Your task to perform on an android device: delete a single message in the gmail app Image 0: 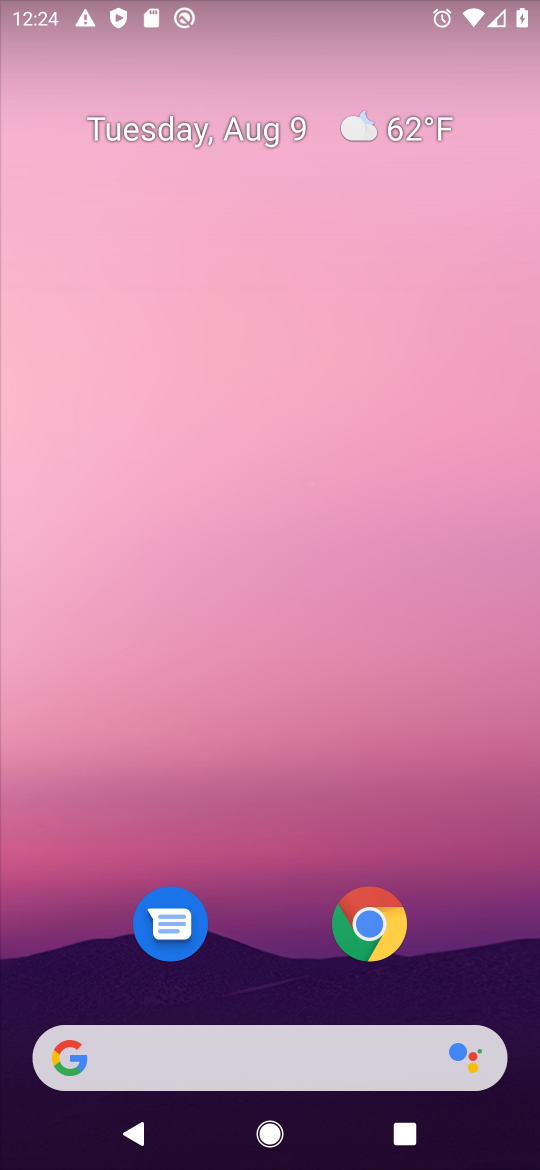
Step 0: drag from (283, 1010) to (324, 99)
Your task to perform on an android device: delete a single message in the gmail app Image 1: 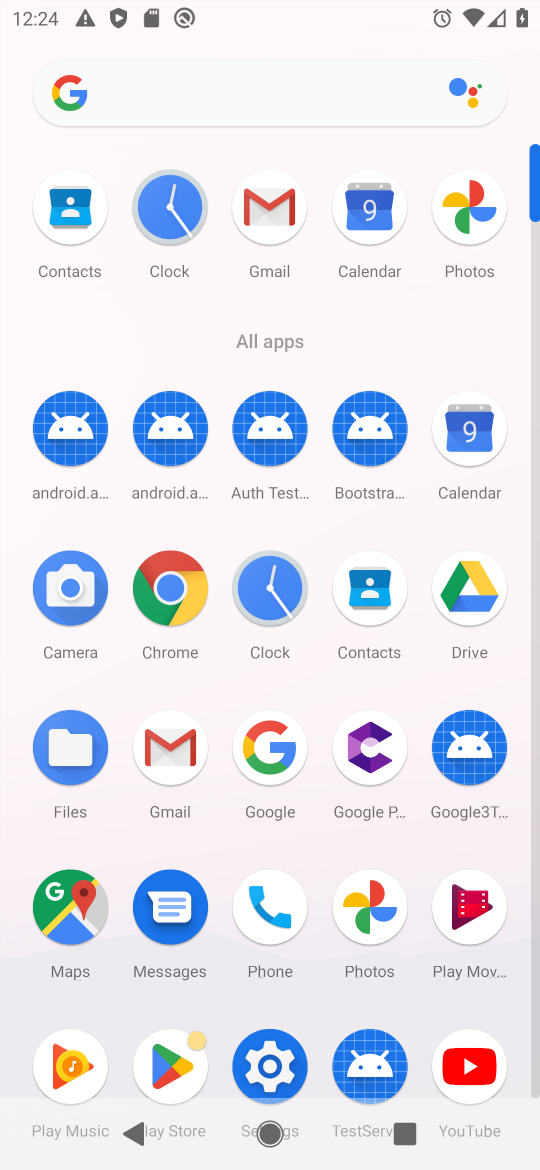
Step 1: task complete